Your task to perform on an android device: Check the news Image 0: 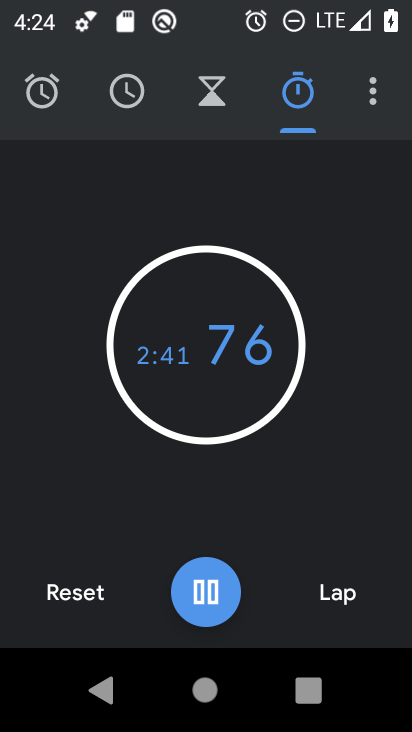
Step 0: press home button
Your task to perform on an android device: Check the news Image 1: 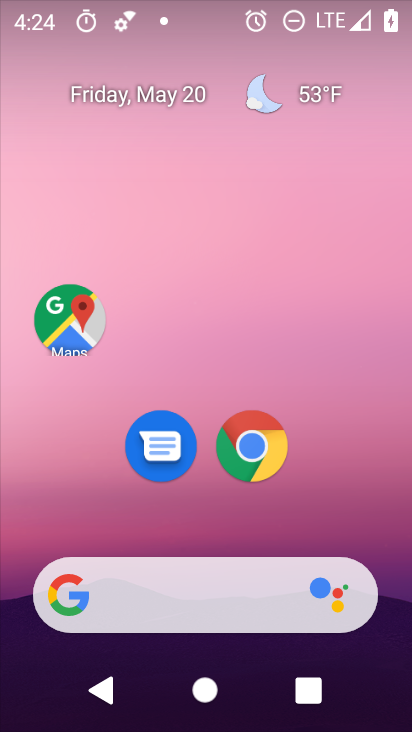
Step 1: drag from (316, 525) to (370, 47)
Your task to perform on an android device: Check the news Image 2: 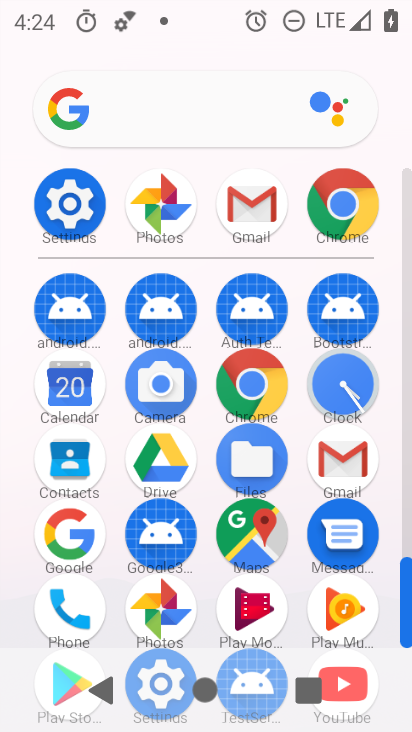
Step 2: click (343, 211)
Your task to perform on an android device: Check the news Image 3: 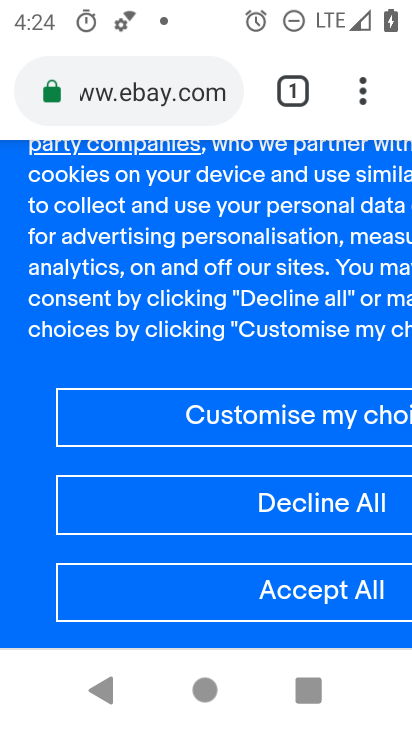
Step 3: drag from (360, 101) to (47, 204)
Your task to perform on an android device: Check the news Image 4: 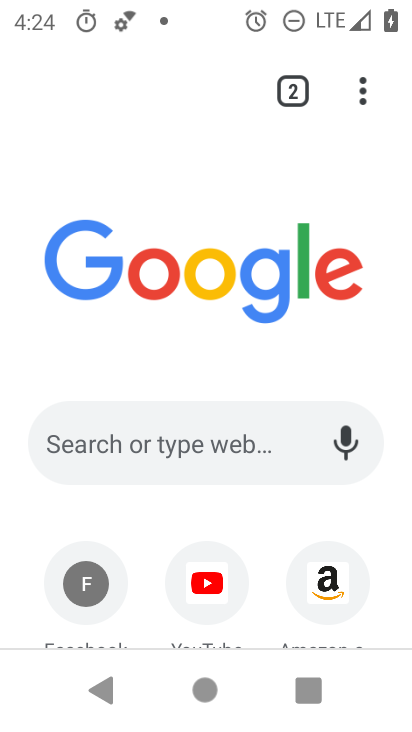
Step 4: drag from (388, 575) to (360, 170)
Your task to perform on an android device: Check the news Image 5: 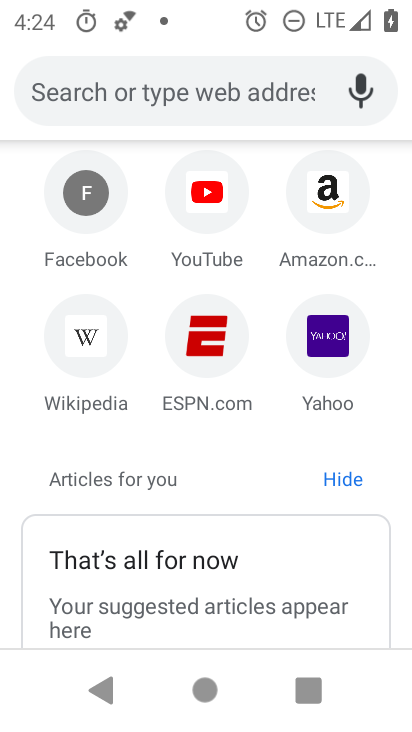
Step 5: drag from (382, 594) to (301, 130)
Your task to perform on an android device: Check the news Image 6: 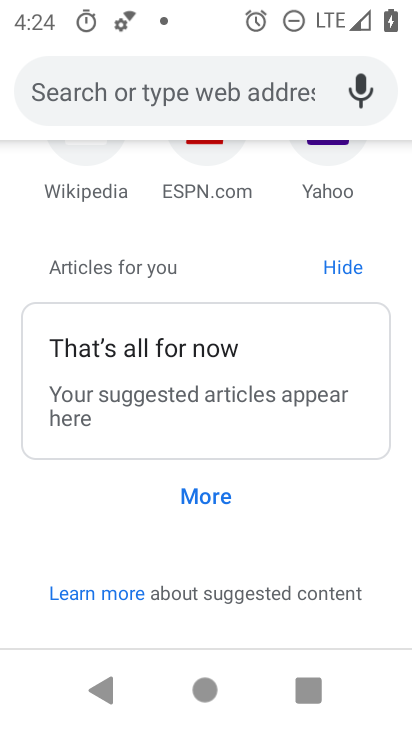
Step 6: click (222, 482)
Your task to perform on an android device: Check the news Image 7: 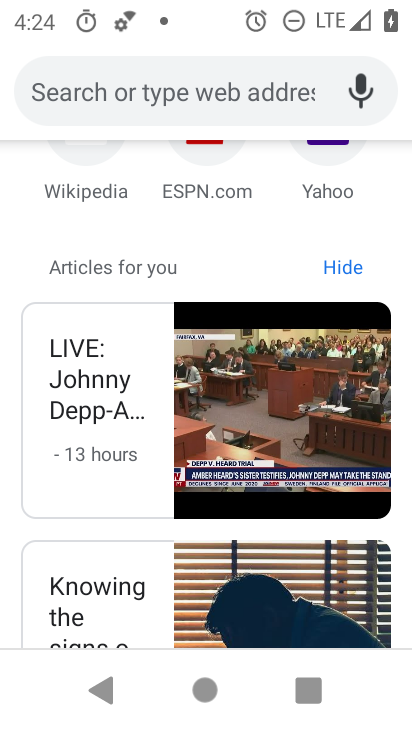
Step 7: drag from (101, 524) to (64, 166)
Your task to perform on an android device: Check the news Image 8: 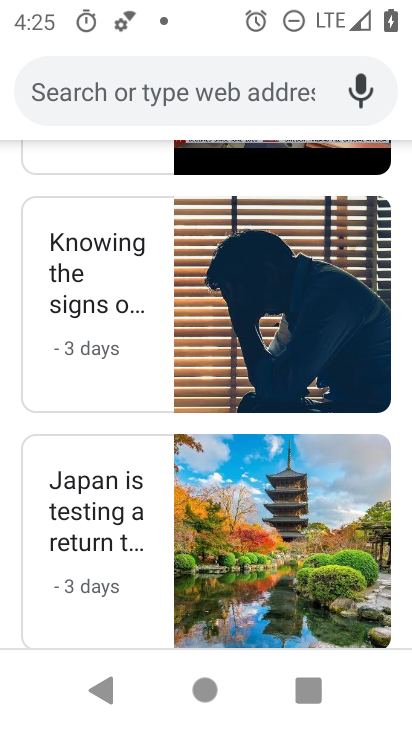
Step 8: click (84, 205)
Your task to perform on an android device: Check the news Image 9: 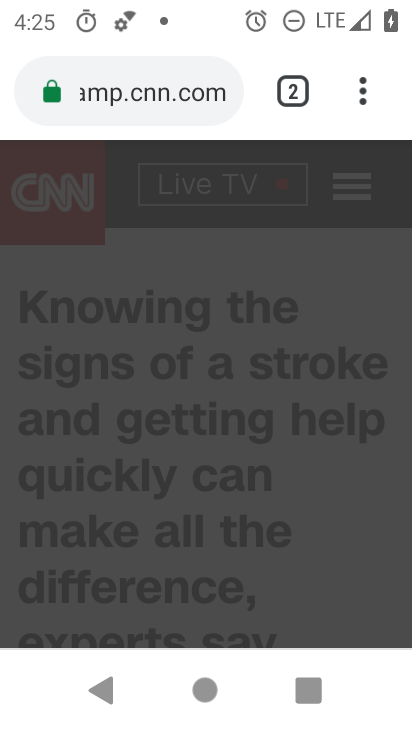
Step 9: task complete